Your task to perform on an android device: Turn on the flashlight Image 0: 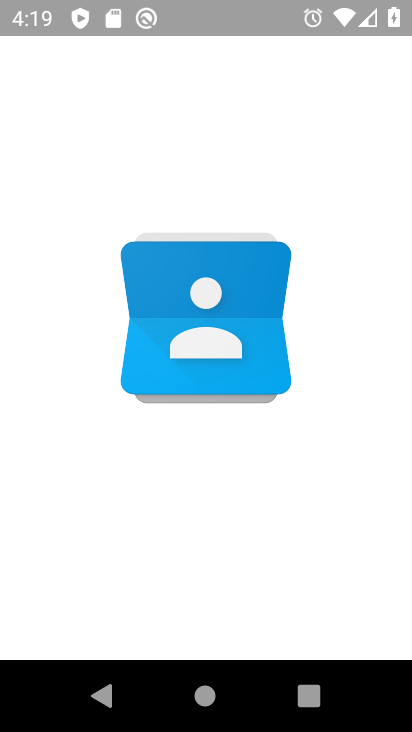
Step 0: drag from (375, 559) to (194, 181)
Your task to perform on an android device: Turn on the flashlight Image 1: 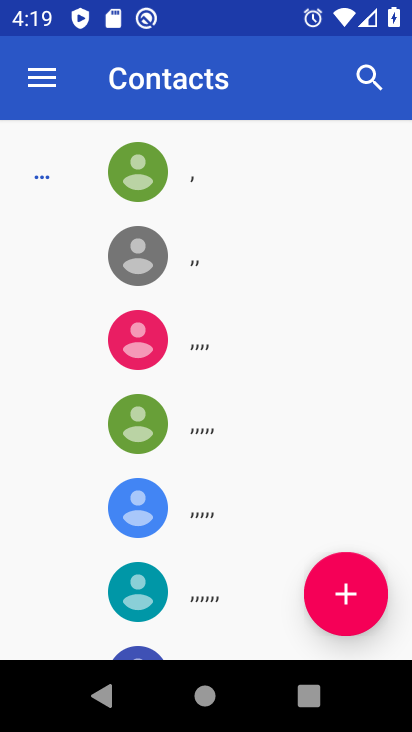
Step 1: task complete